Your task to perform on an android device: turn off wifi Image 0: 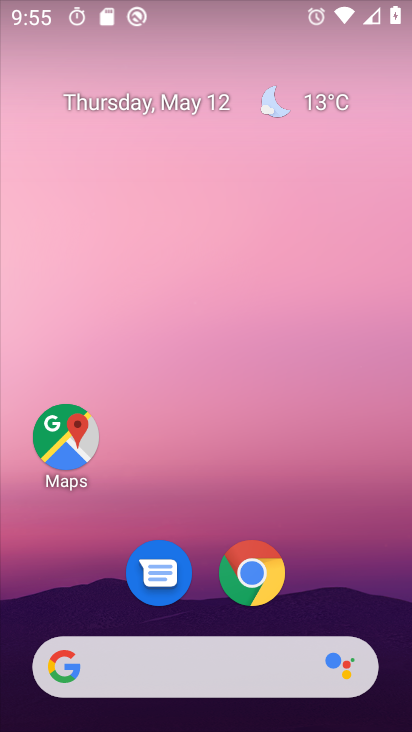
Step 0: drag from (395, 491) to (369, 306)
Your task to perform on an android device: turn off wifi Image 1: 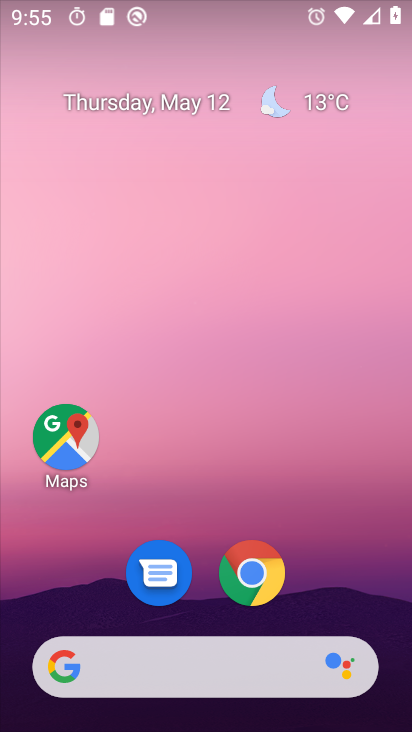
Step 1: drag from (396, 682) to (379, 323)
Your task to perform on an android device: turn off wifi Image 2: 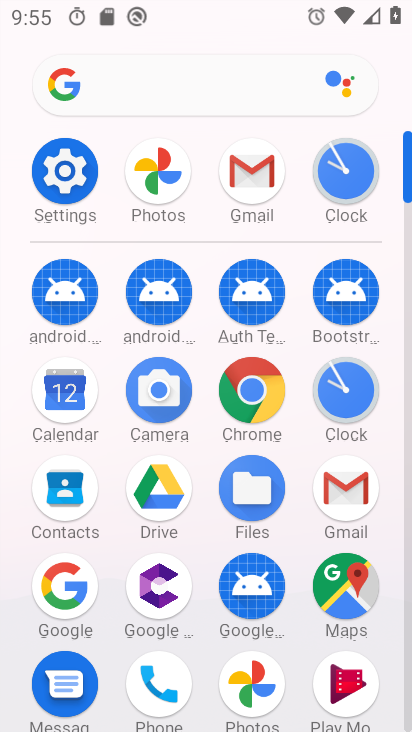
Step 2: click (63, 160)
Your task to perform on an android device: turn off wifi Image 3: 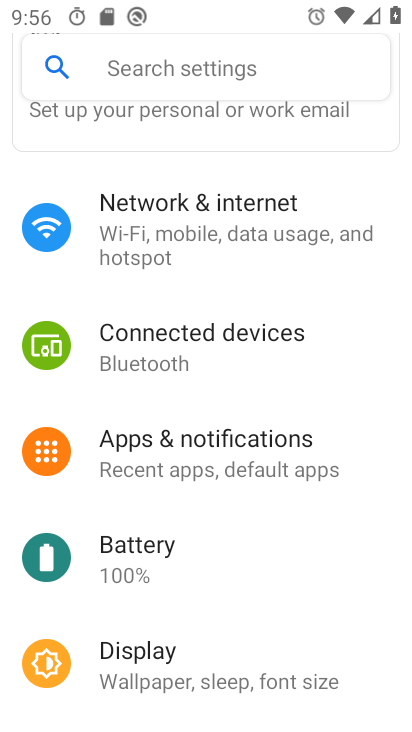
Step 3: click (174, 222)
Your task to perform on an android device: turn off wifi Image 4: 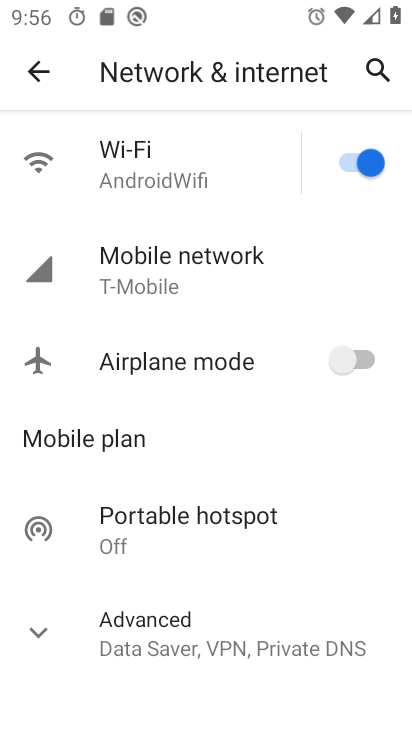
Step 4: click (342, 168)
Your task to perform on an android device: turn off wifi Image 5: 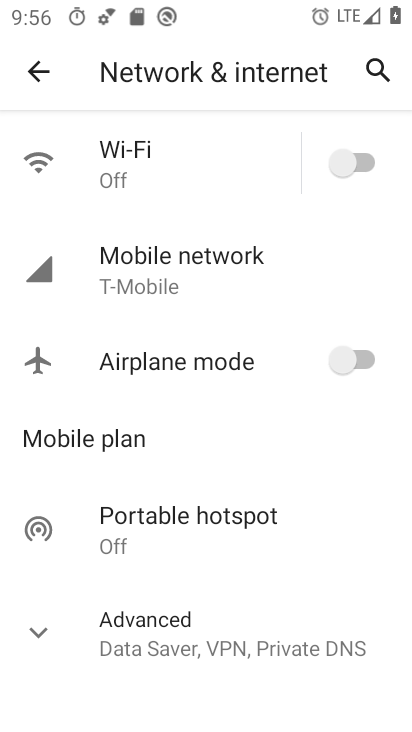
Step 5: task complete